Your task to perform on an android device: refresh tabs in the chrome app Image 0: 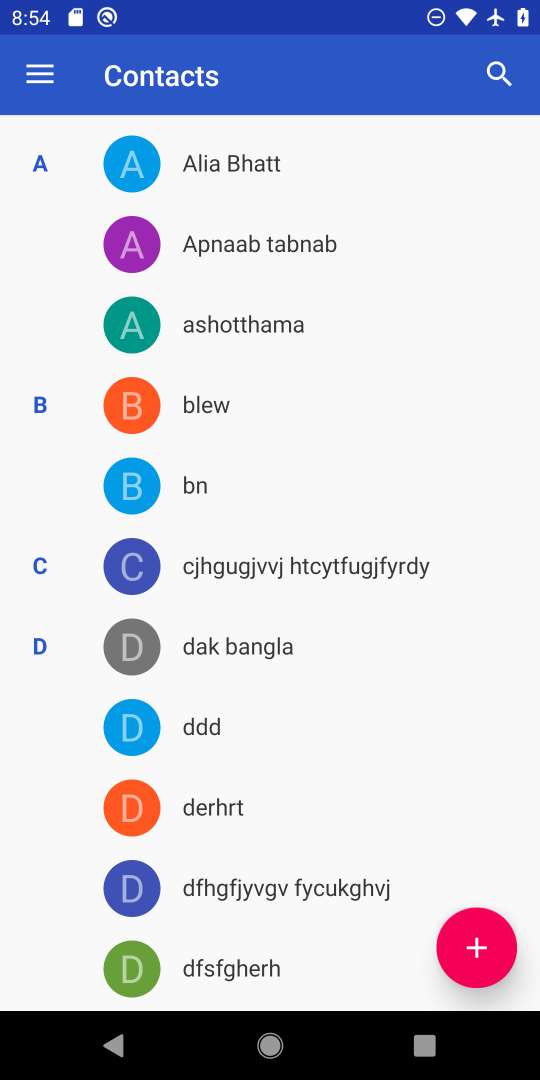
Step 0: press home button
Your task to perform on an android device: refresh tabs in the chrome app Image 1: 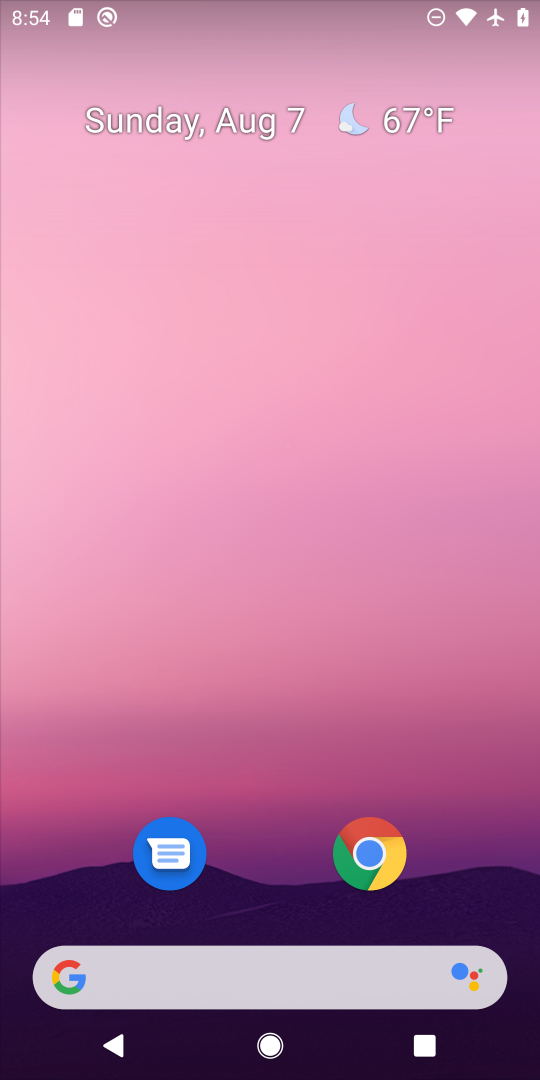
Step 1: drag from (290, 878) to (353, 149)
Your task to perform on an android device: refresh tabs in the chrome app Image 2: 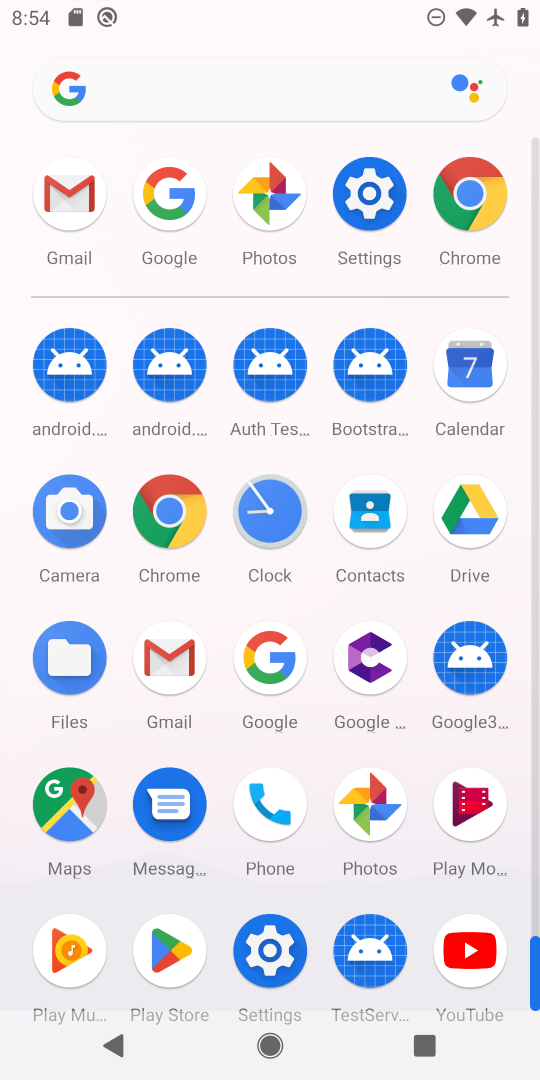
Step 2: click (470, 207)
Your task to perform on an android device: refresh tabs in the chrome app Image 3: 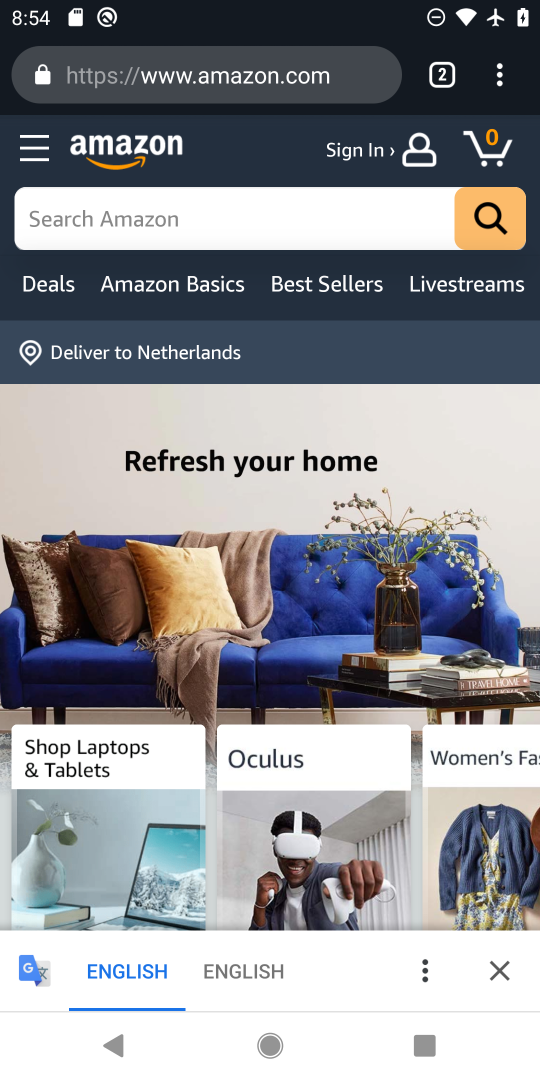
Step 3: click (498, 76)
Your task to perform on an android device: refresh tabs in the chrome app Image 4: 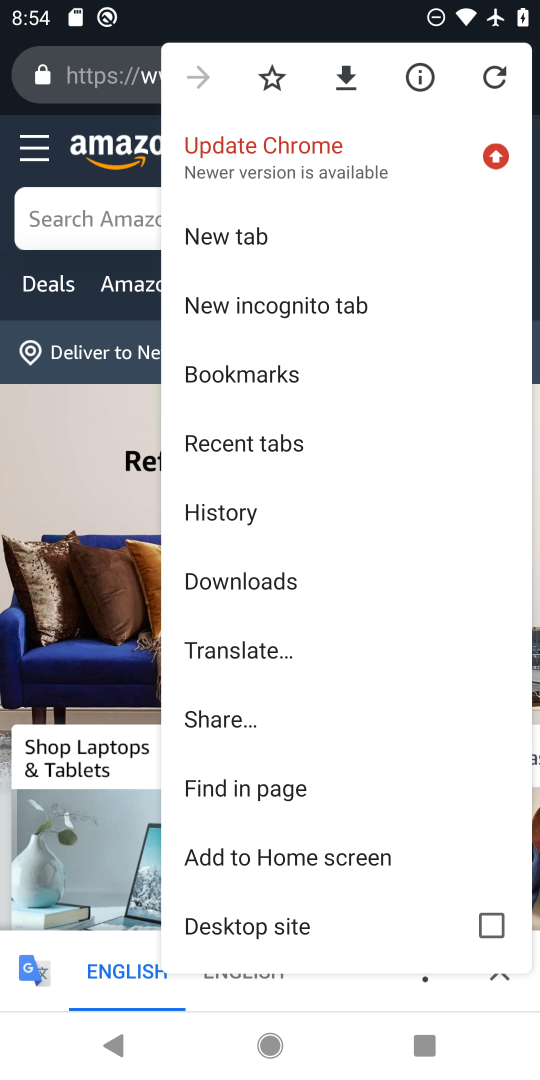
Step 4: click (501, 91)
Your task to perform on an android device: refresh tabs in the chrome app Image 5: 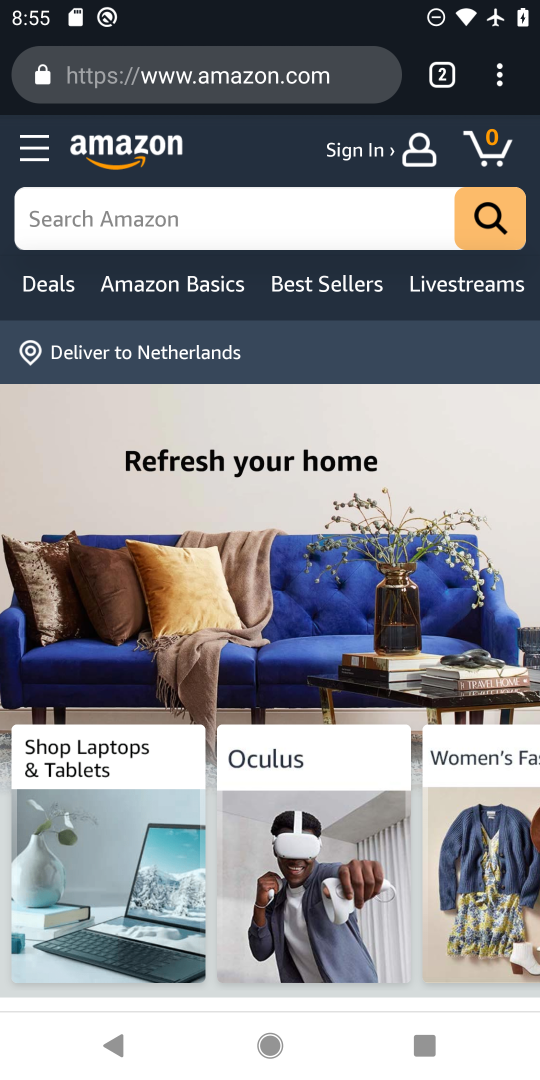
Step 5: task complete